Your task to perform on an android device: turn off airplane mode Image 0: 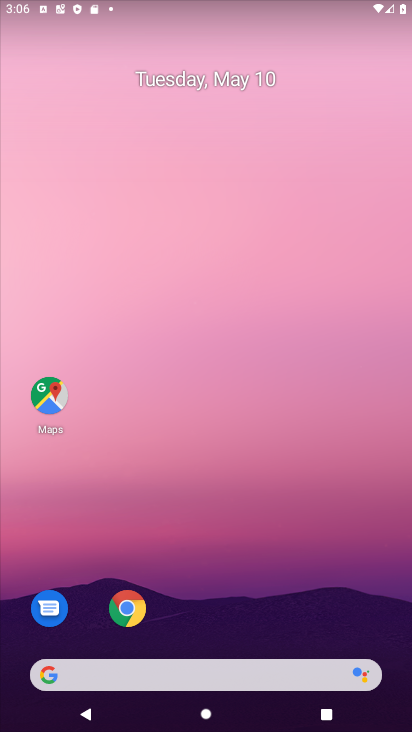
Step 0: drag from (392, 650) to (283, 108)
Your task to perform on an android device: turn off airplane mode Image 1: 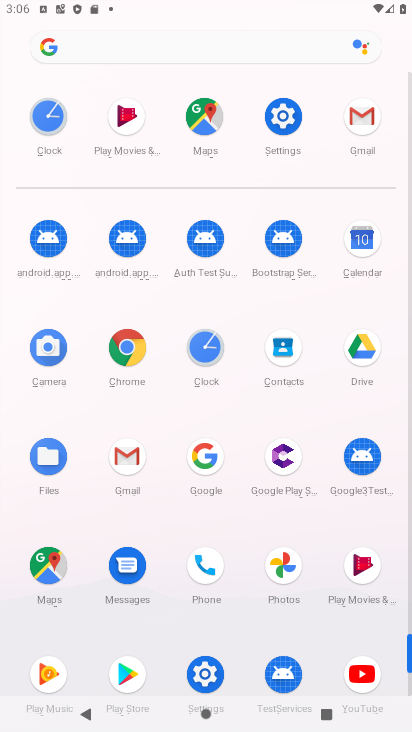
Step 1: click (204, 672)
Your task to perform on an android device: turn off airplane mode Image 2: 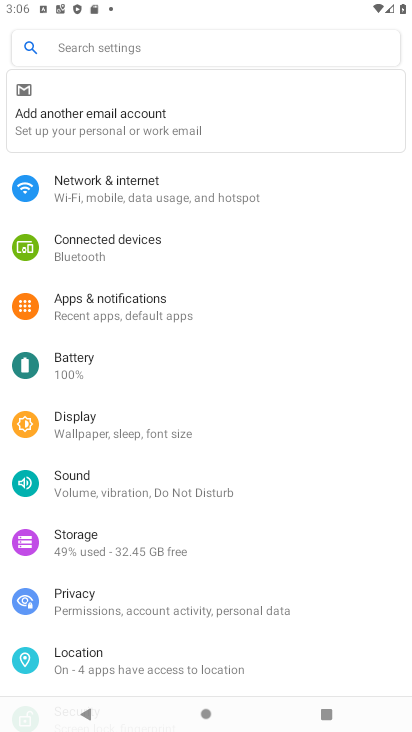
Step 2: click (96, 181)
Your task to perform on an android device: turn off airplane mode Image 3: 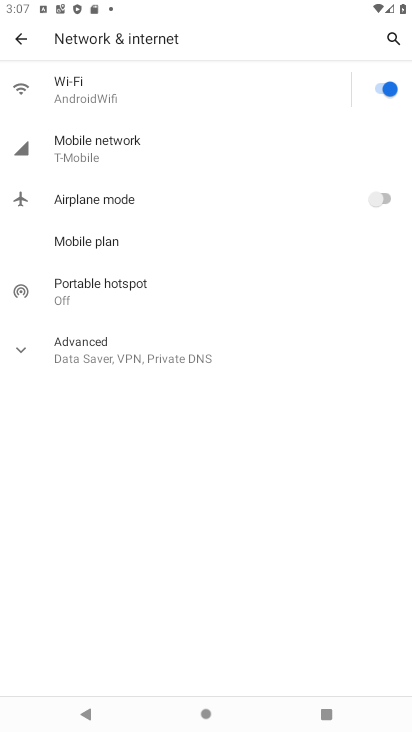
Step 3: task complete